Your task to perform on an android device: remove spam from my inbox in the gmail app Image 0: 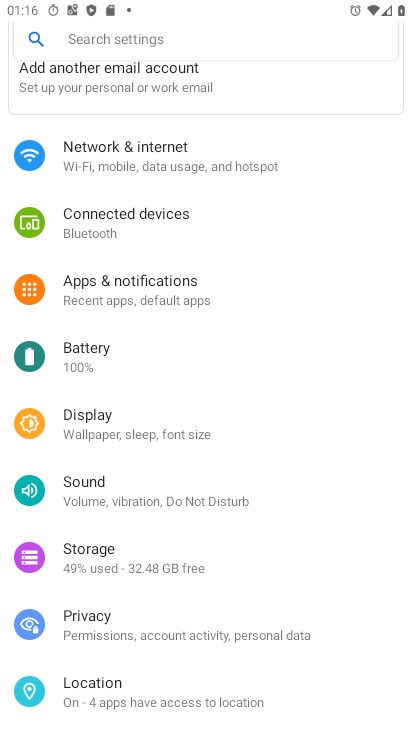
Step 0: press home button
Your task to perform on an android device: remove spam from my inbox in the gmail app Image 1: 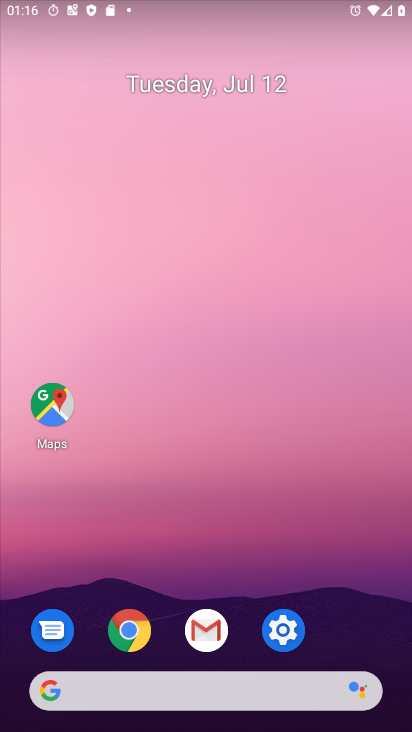
Step 1: click (200, 624)
Your task to perform on an android device: remove spam from my inbox in the gmail app Image 2: 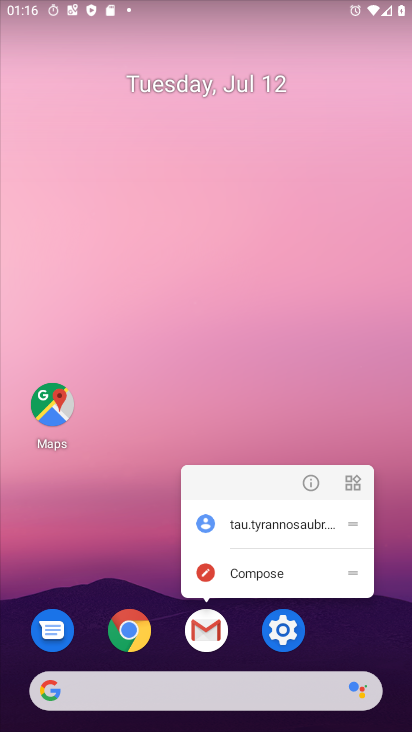
Step 2: click (204, 639)
Your task to perform on an android device: remove spam from my inbox in the gmail app Image 3: 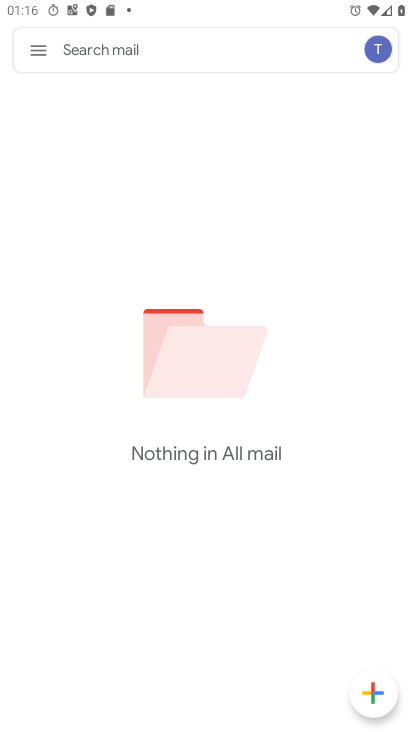
Step 3: click (31, 53)
Your task to perform on an android device: remove spam from my inbox in the gmail app Image 4: 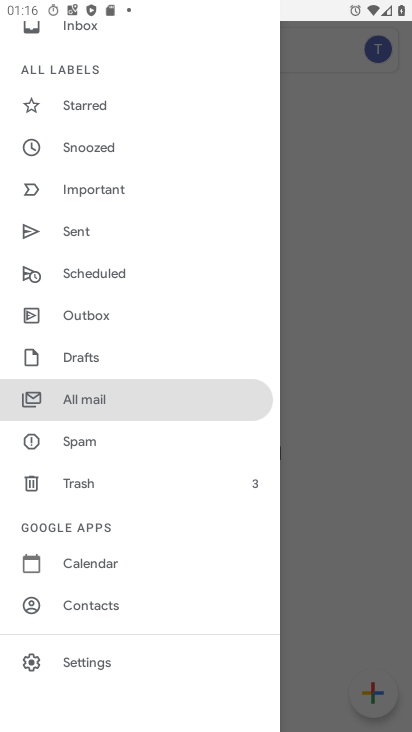
Step 4: click (80, 447)
Your task to perform on an android device: remove spam from my inbox in the gmail app Image 5: 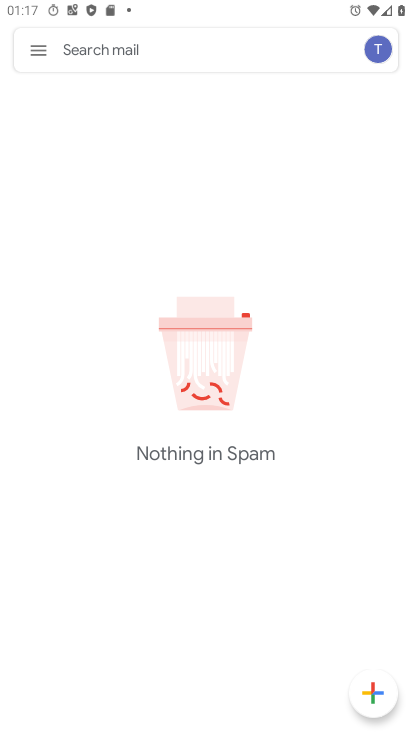
Step 5: task complete